Your task to perform on an android device: toggle notification dots Image 0: 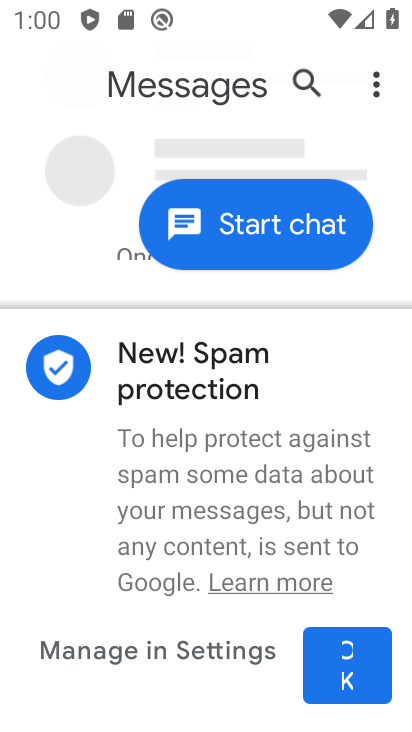
Step 0: press home button
Your task to perform on an android device: toggle notification dots Image 1: 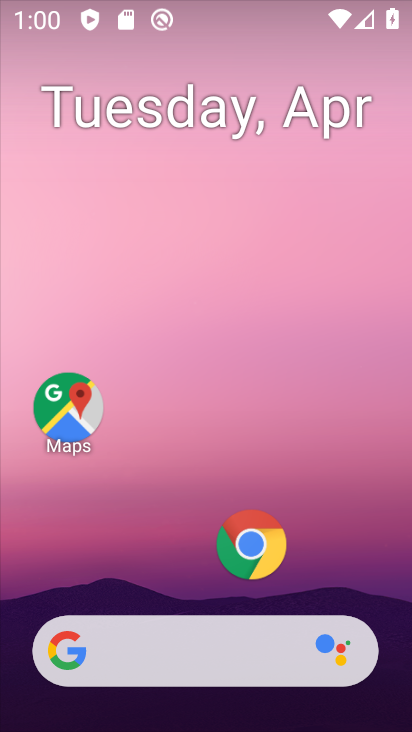
Step 1: drag from (192, 602) to (154, 155)
Your task to perform on an android device: toggle notification dots Image 2: 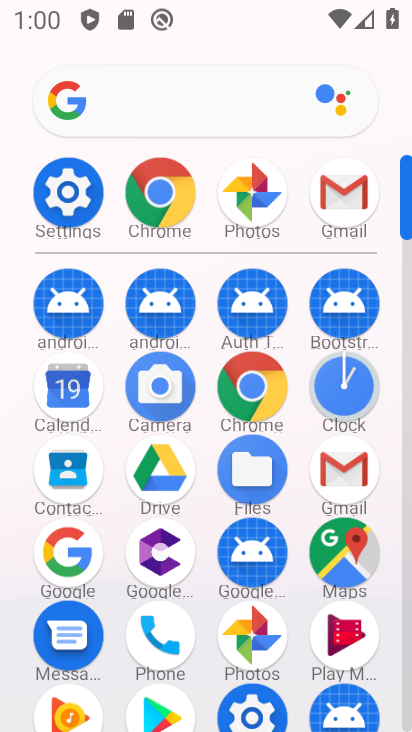
Step 2: click (56, 190)
Your task to perform on an android device: toggle notification dots Image 3: 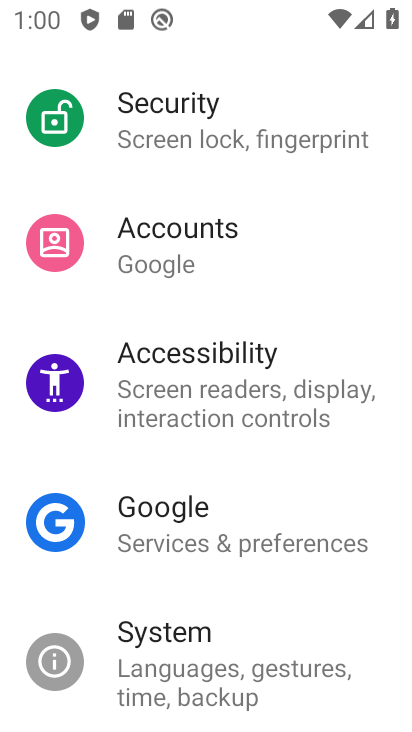
Step 3: drag from (235, 187) to (240, 658)
Your task to perform on an android device: toggle notification dots Image 4: 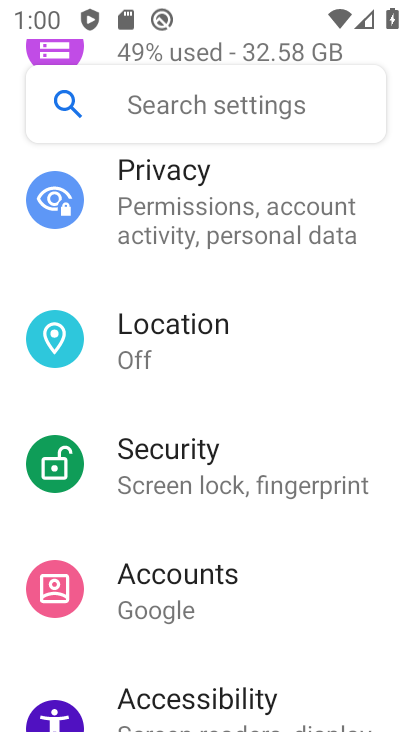
Step 4: click (252, 91)
Your task to perform on an android device: toggle notification dots Image 5: 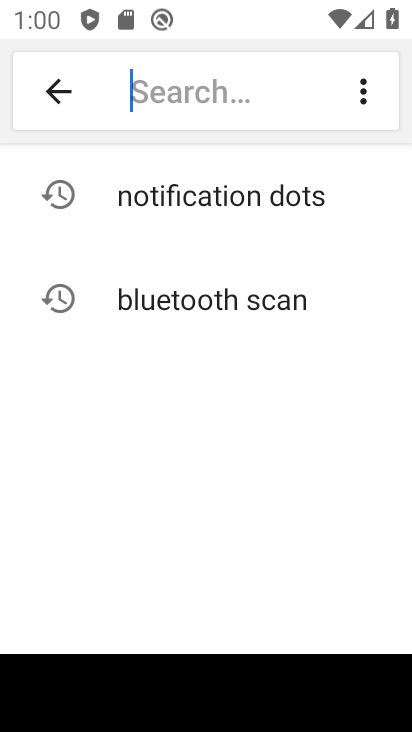
Step 5: click (216, 214)
Your task to perform on an android device: toggle notification dots Image 6: 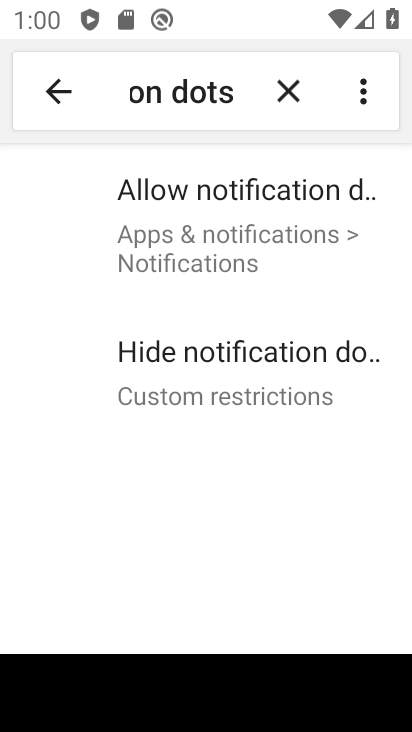
Step 6: click (218, 233)
Your task to perform on an android device: toggle notification dots Image 7: 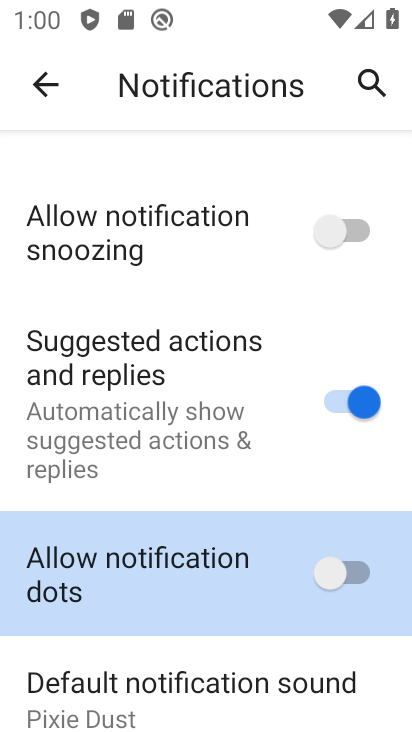
Step 7: click (362, 561)
Your task to perform on an android device: toggle notification dots Image 8: 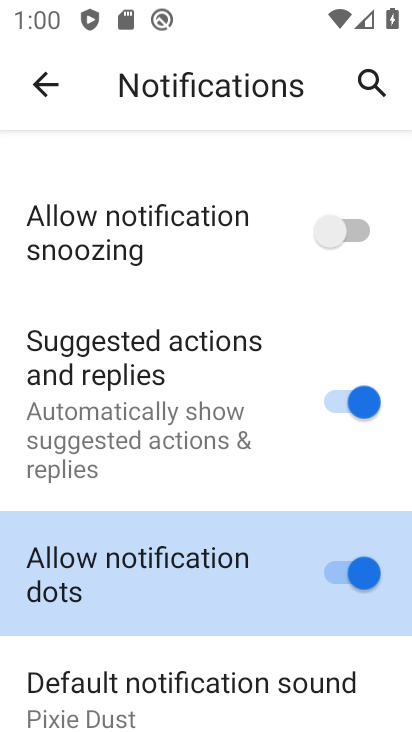
Step 8: task complete